Your task to perform on an android device: Open Reddit.com Image 0: 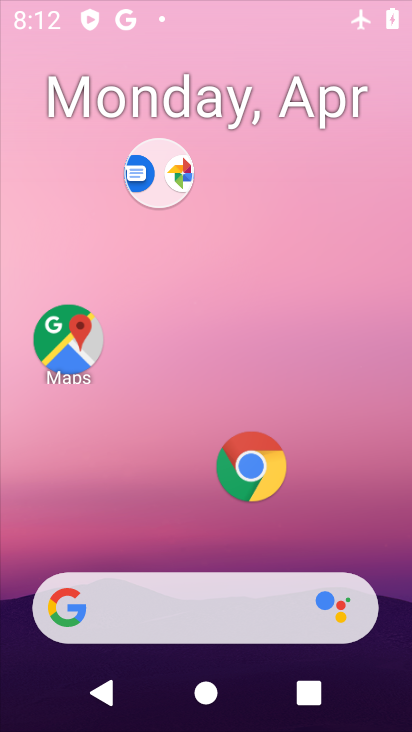
Step 0: click (221, 260)
Your task to perform on an android device: Open Reddit.com Image 1: 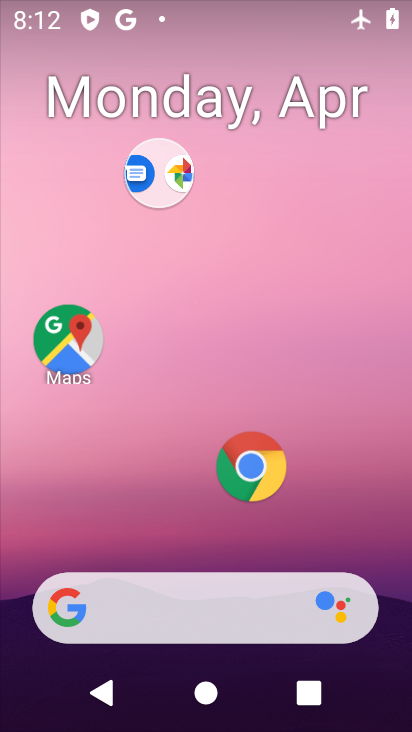
Step 1: click (259, 467)
Your task to perform on an android device: Open Reddit.com Image 2: 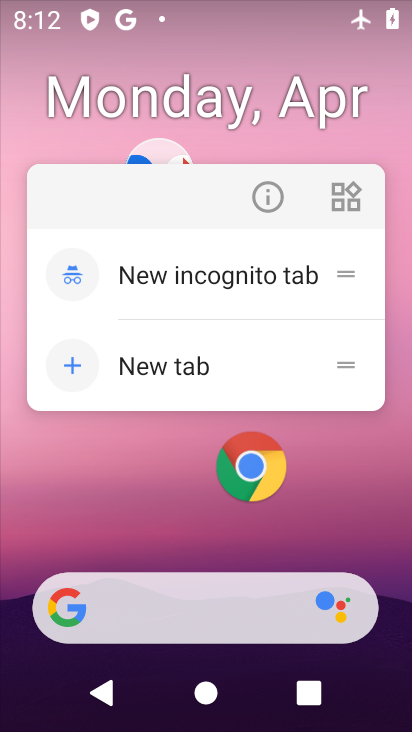
Step 2: click (257, 208)
Your task to perform on an android device: Open Reddit.com Image 3: 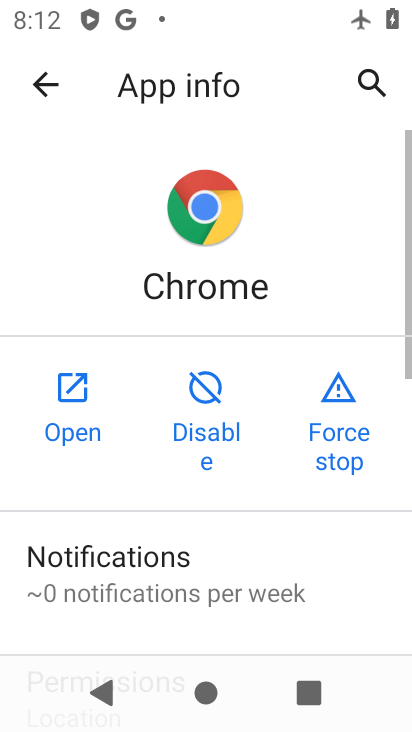
Step 3: click (79, 398)
Your task to perform on an android device: Open Reddit.com Image 4: 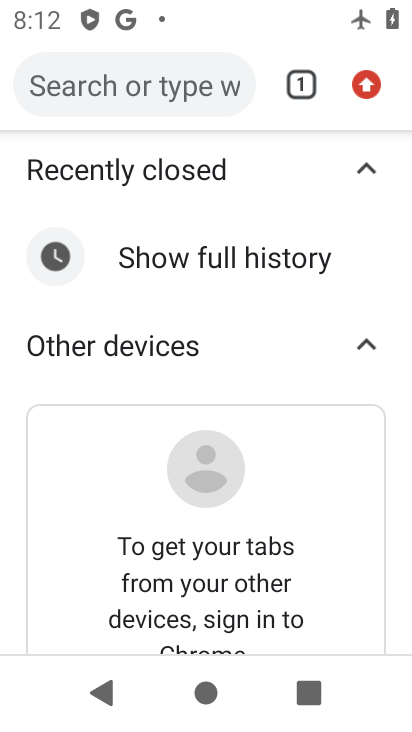
Step 4: drag from (157, 458) to (208, 96)
Your task to perform on an android device: Open Reddit.com Image 5: 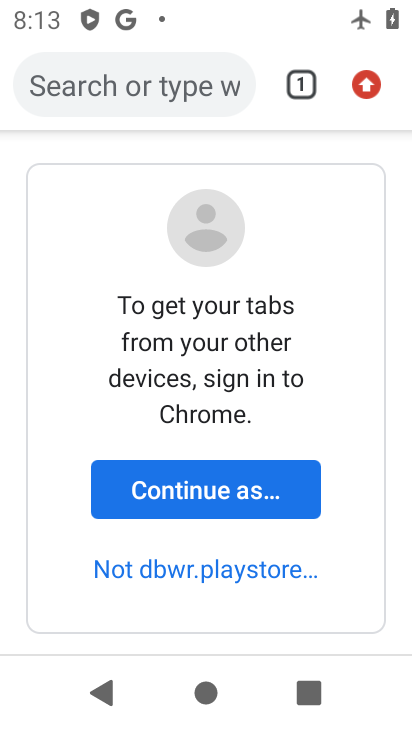
Step 5: click (209, 87)
Your task to perform on an android device: Open Reddit.com Image 6: 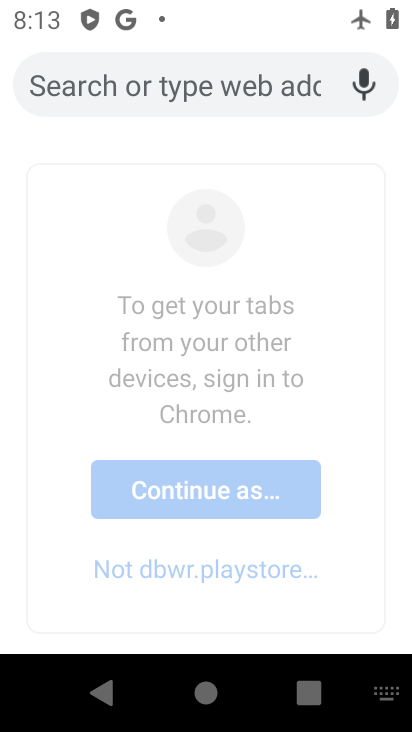
Step 6: type "reddit.com"
Your task to perform on an android device: Open Reddit.com Image 7: 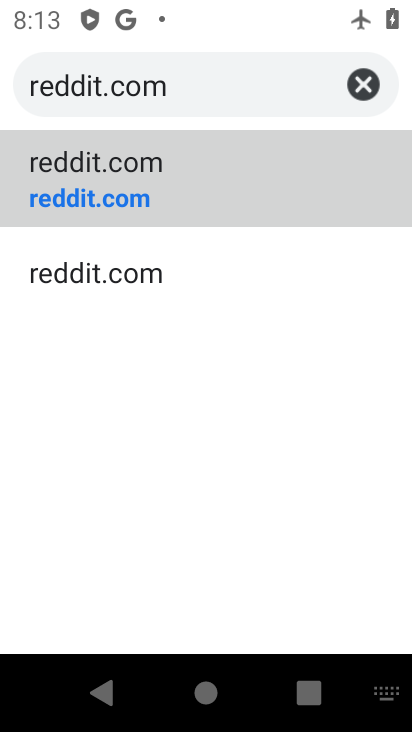
Step 7: click (144, 163)
Your task to perform on an android device: Open Reddit.com Image 8: 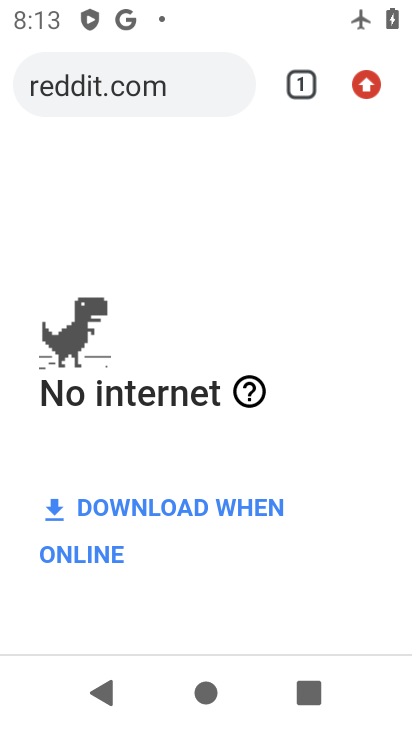
Step 8: task complete